Your task to perform on an android device: Search for hotels in Seattle Image 0: 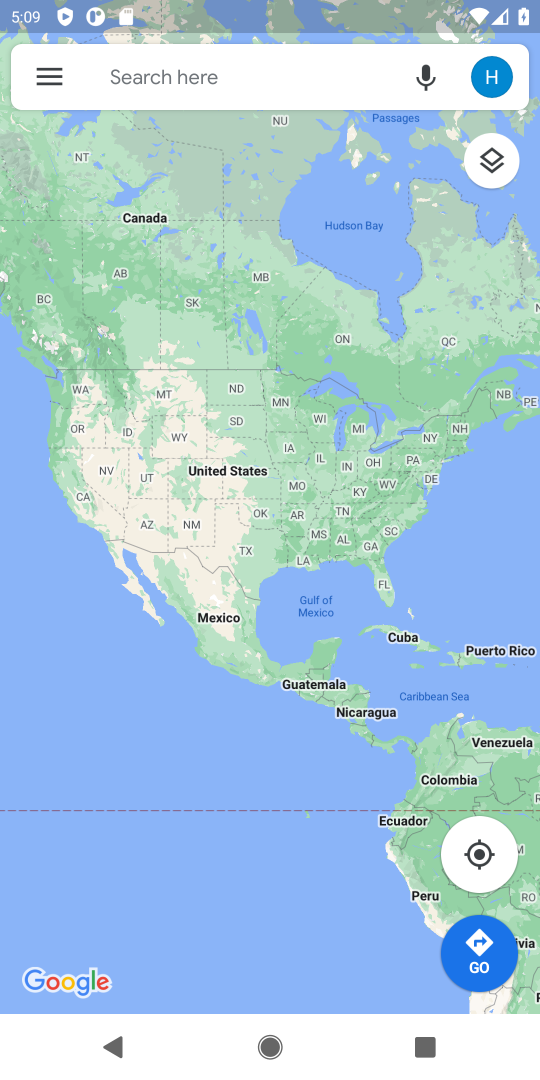
Step 0: press home button
Your task to perform on an android device: Search for hotels in Seattle Image 1: 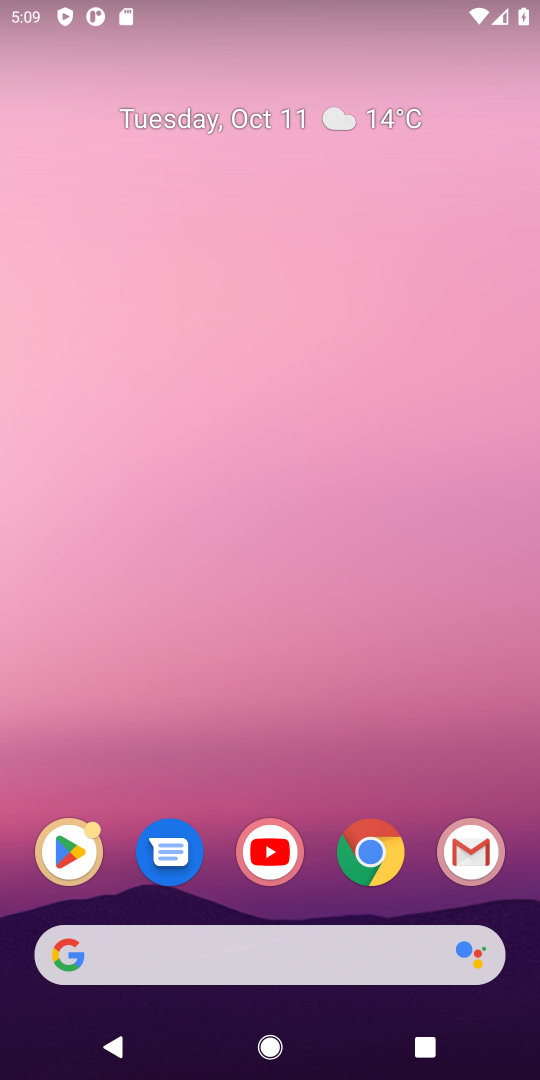
Step 1: click (362, 865)
Your task to perform on an android device: Search for hotels in Seattle Image 2: 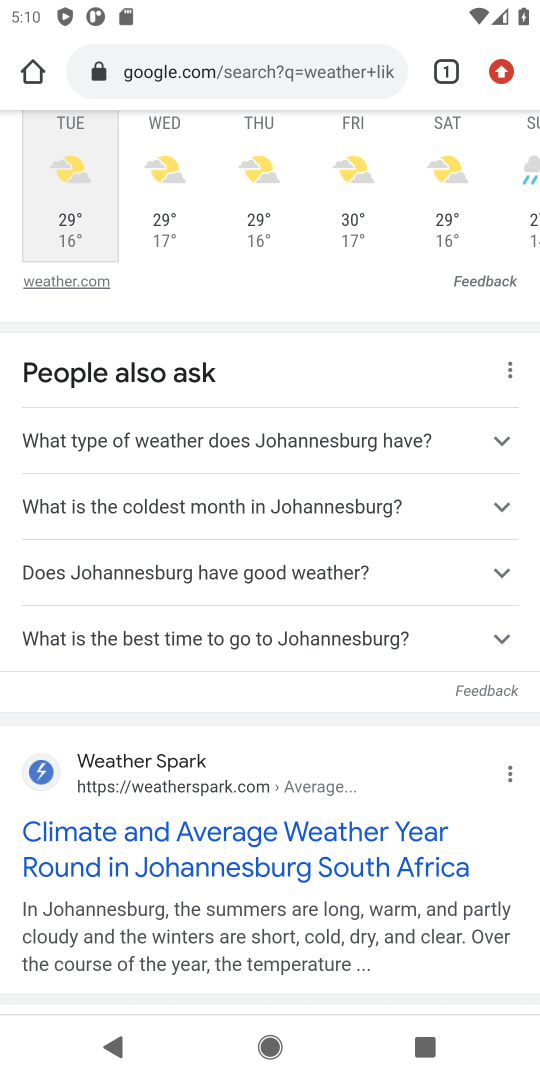
Step 2: click (330, 89)
Your task to perform on an android device: Search for hotels in Seattle Image 3: 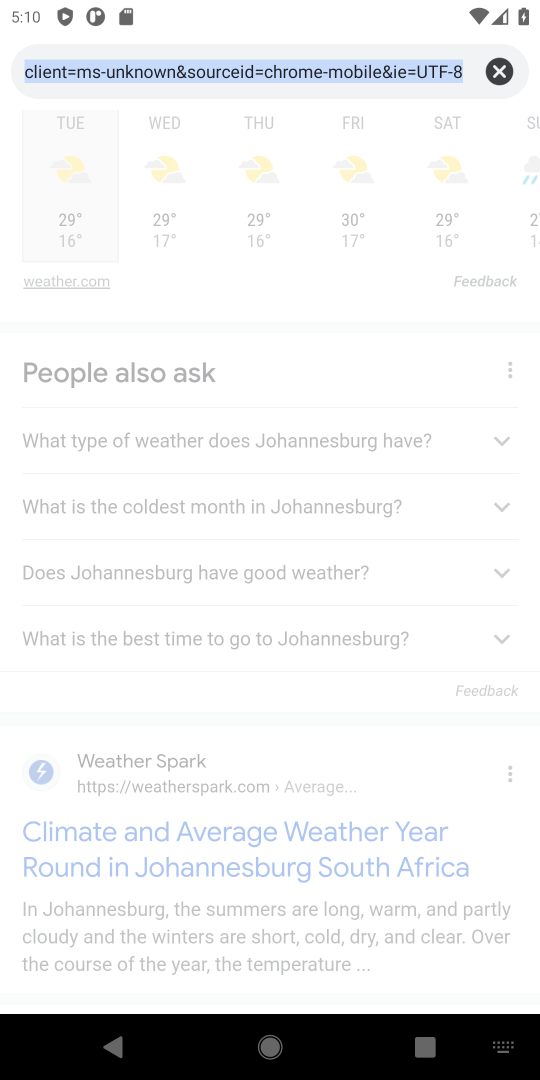
Step 3: type "hotels in seattle"
Your task to perform on an android device: Search for hotels in Seattle Image 4: 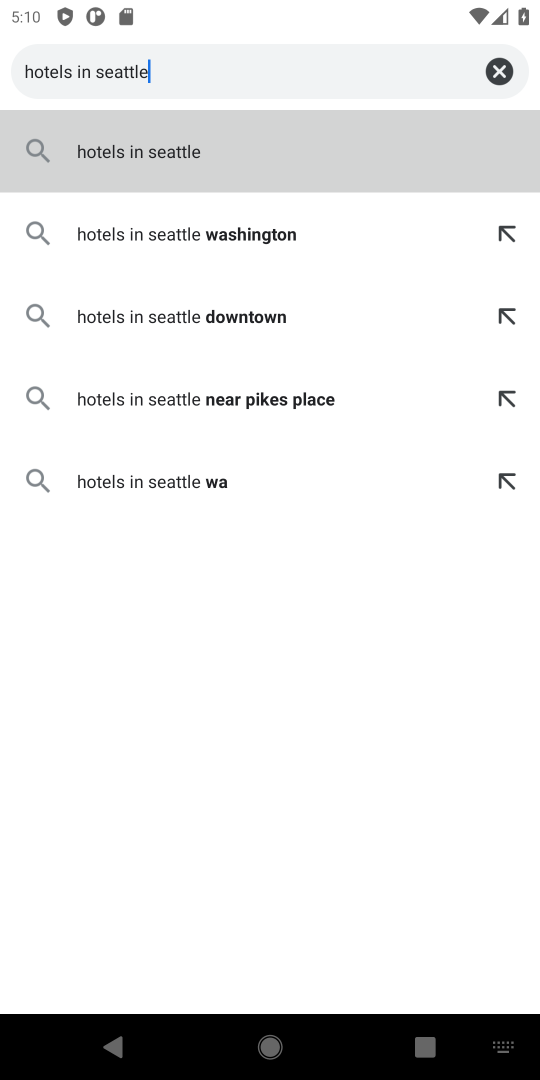
Step 4: click (215, 135)
Your task to perform on an android device: Search for hotels in Seattle Image 5: 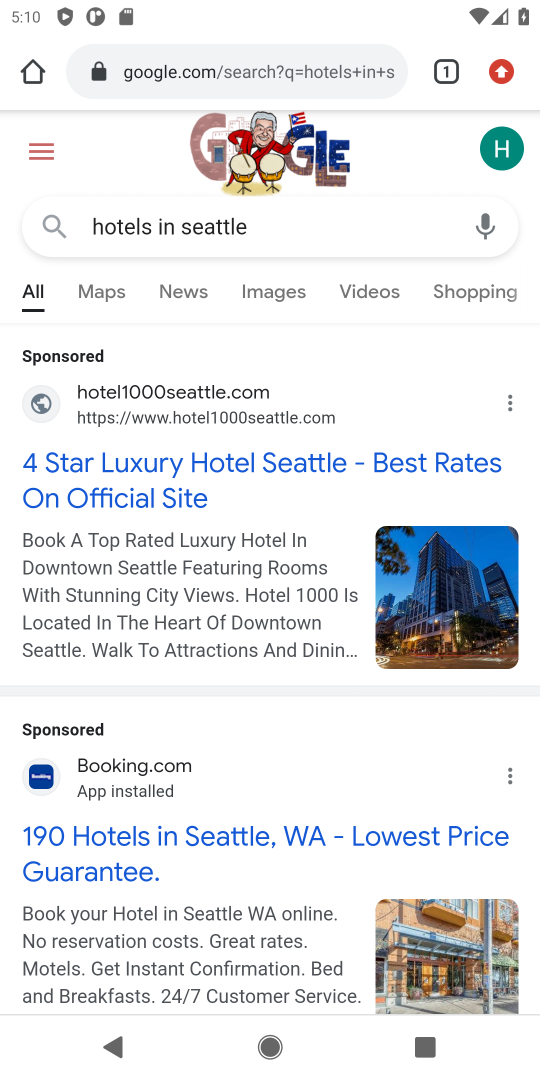
Step 5: task complete